Your task to perform on an android device: Open wifi settings Image 0: 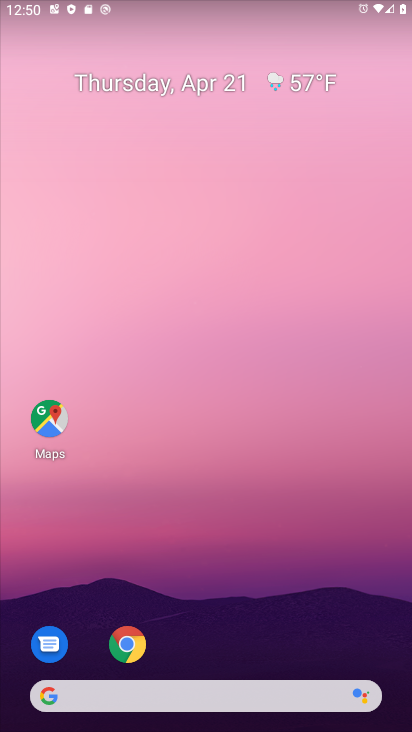
Step 0: drag from (198, 671) to (153, 119)
Your task to perform on an android device: Open wifi settings Image 1: 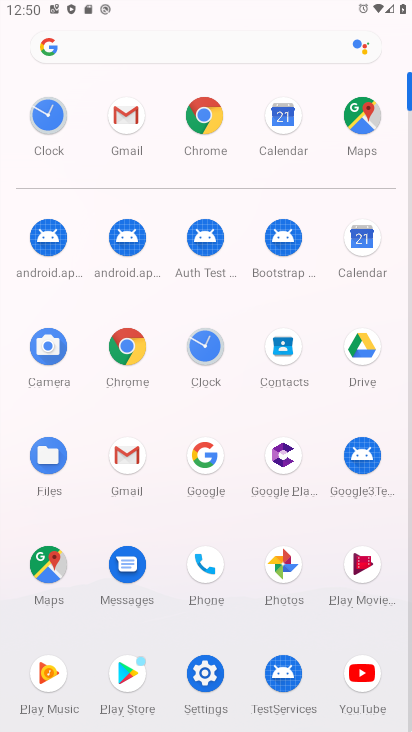
Step 1: click (208, 665)
Your task to perform on an android device: Open wifi settings Image 2: 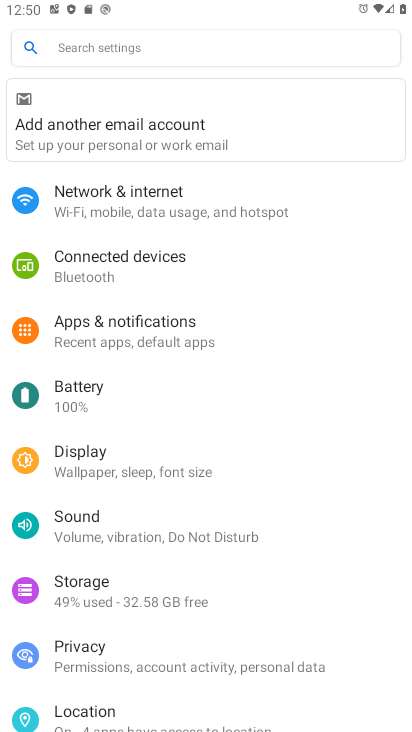
Step 2: click (122, 211)
Your task to perform on an android device: Open wifi settings Image 3: 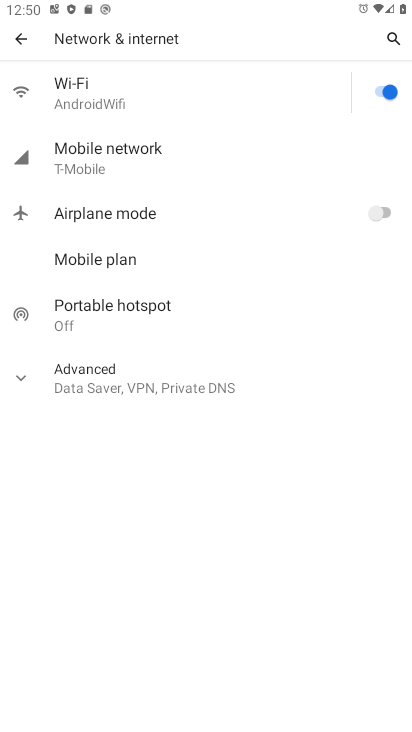
Step 3: click (71, 120)
Your task to perform on an android device: Open wifi settings Image 4: 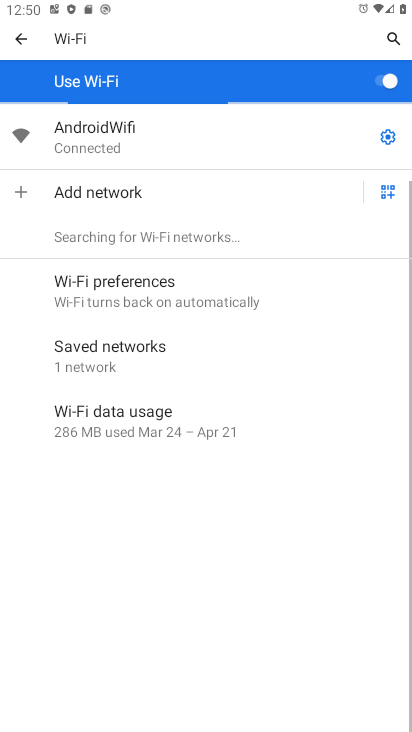
Step 4: task complete